Your task to perform on an android device: turn off translation in the chrome app Image 0: 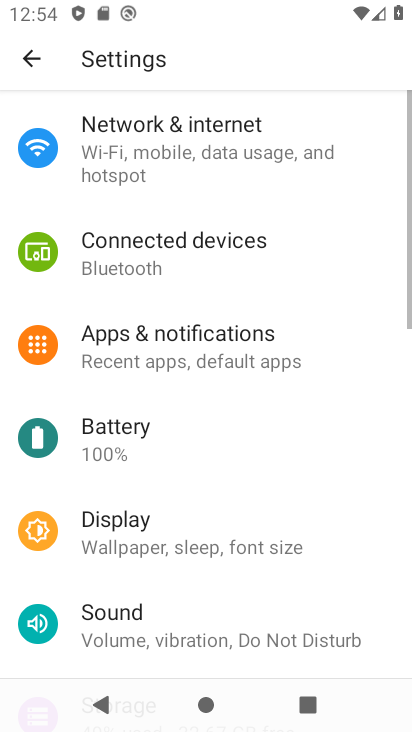
Step 0: press home button
Your task to perform on an android device: turn off translation in the chrome app Image 1: 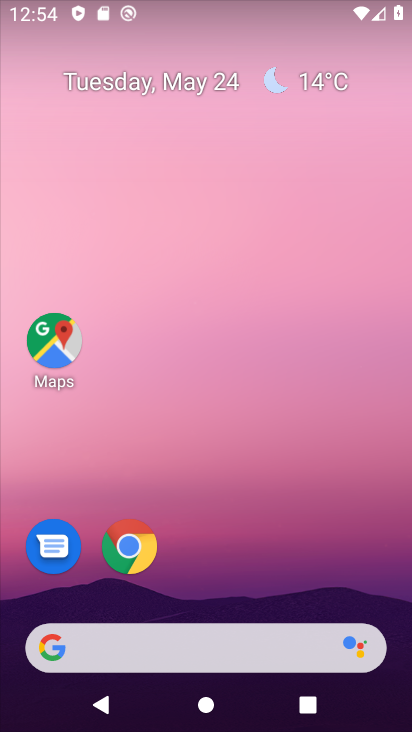
Step 1: click (133, 552)
Your task to perform on an android device: turn off translation in the chrome app Image 2: 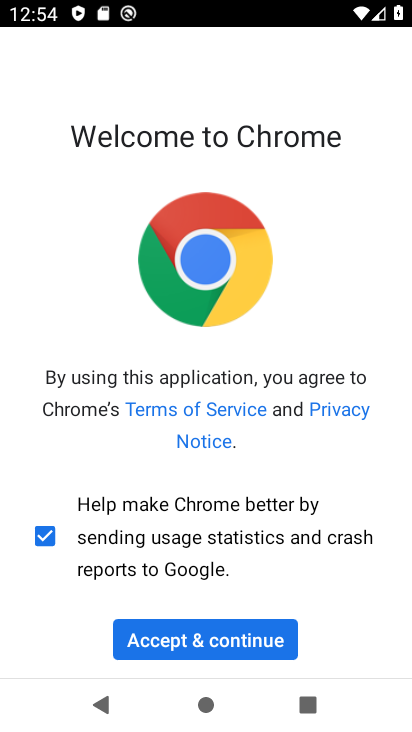
Step 2: click (235, 634)
Your task to perform on an android device: turn off translation in the chrome app Image 3: 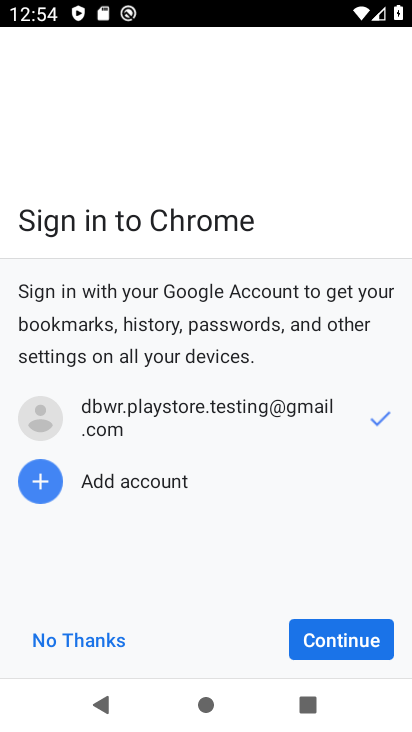
Step 3: click (330, 648)
Your task to perform on an android device: turn off translation in the chrome app Image 4: 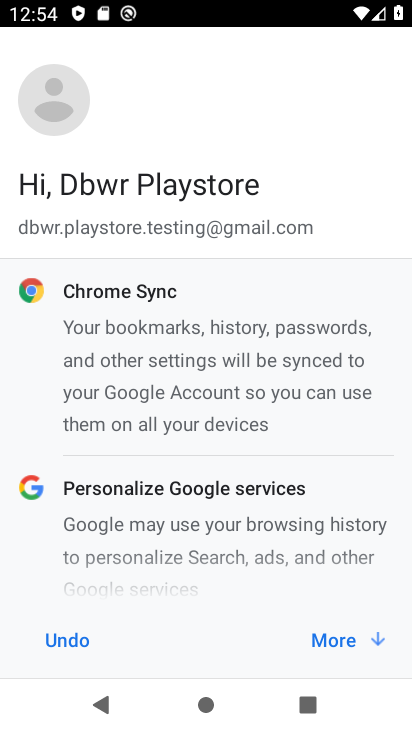
Step 4: click (326, 627)
Your task to perform on an android device: turn off translation in the chrome app Image 5: 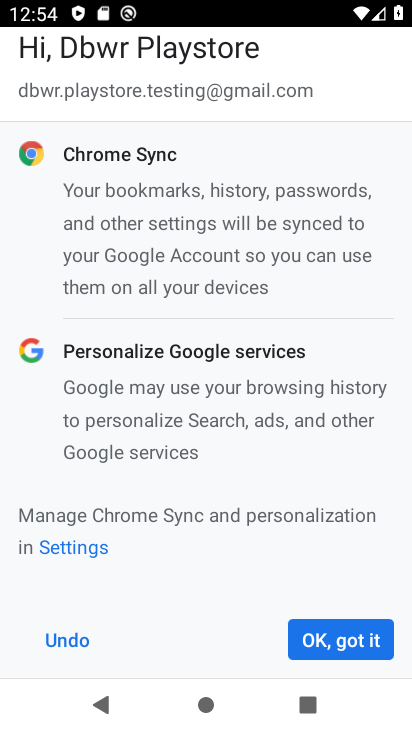
Step 5: click (326, 627)
Your task to perform on an android device: turn off translation in the chrome app Image 6: 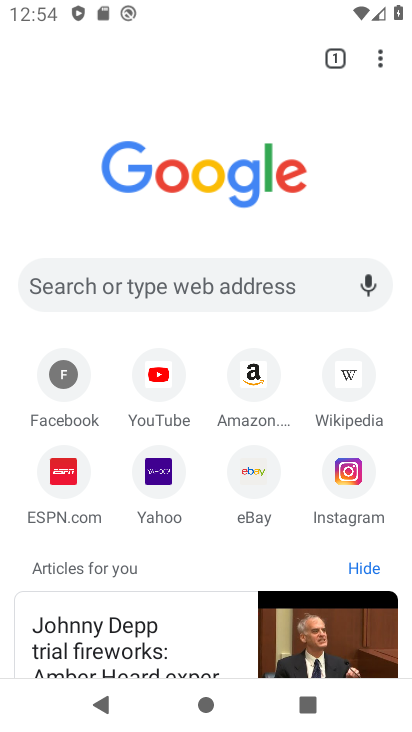
Step 6: click (371, 65)
Your task to perform on an android device: turn off translation in the chrome app Image 7: 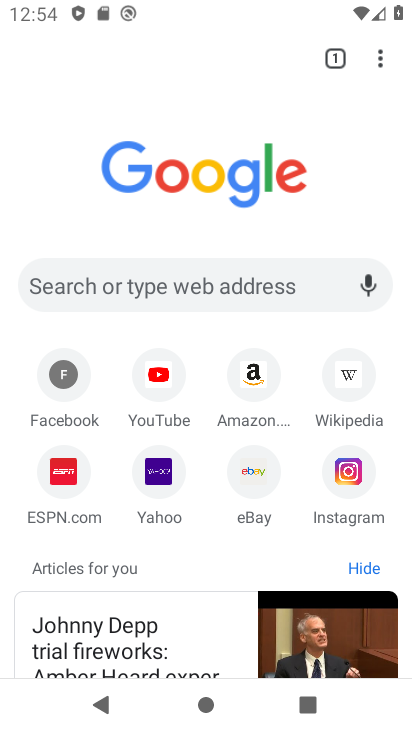
Step 7: click (371, 65)
Your task to perform on an android device: turn off translation in the chrome app Image 8: 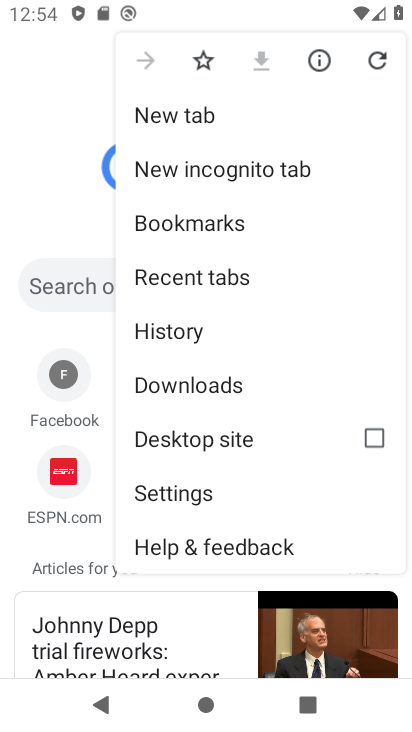
Step 8: click (221, 489)
Your task to perform on an android device: turn off translation in the chrome app Image 9: 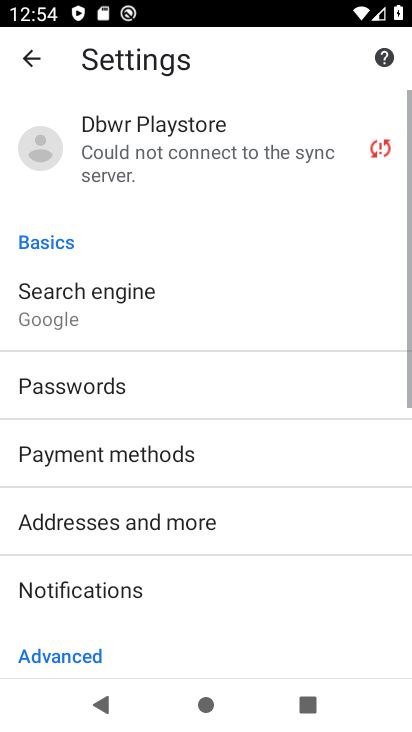
Step 9: drag from (195, 585) to (235, 294)
Your task to perform on an android device: turn off translation in the chrome app Image 10: 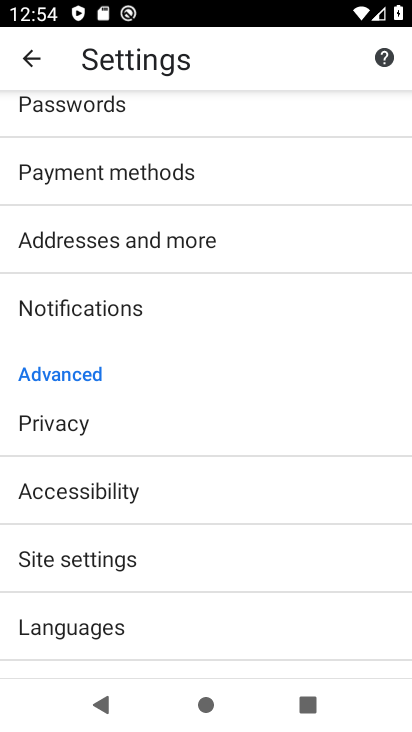
Step 10: click (159, 623)
Your task to perform on an android device: turn off translation in the chrome app Image 11: 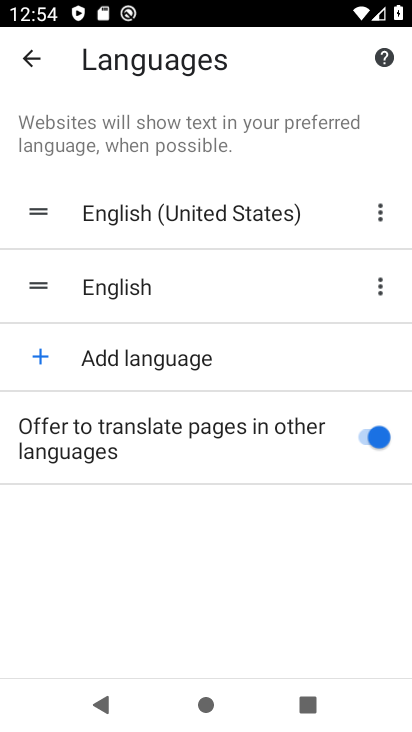
Step 11: click (373, 436)
Your task to perform on an android device: turn off translation in the chrome app Image 12: 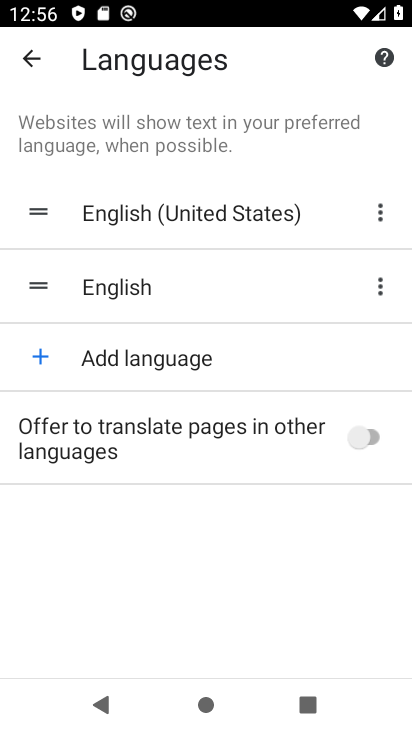
Step 12: task complete